Your task to perform on an android device: open chrome and create a bookmark for the current page Image 0: 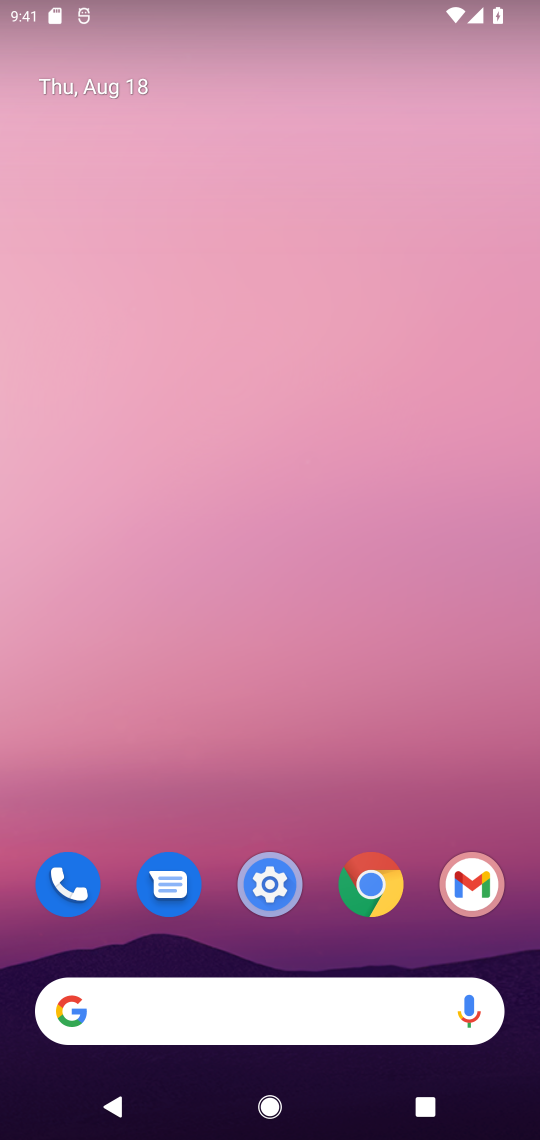
Step 0: click (365, 898)
Your task to perform on an android device: open chrome and create a bookmark for the current page Image 1: 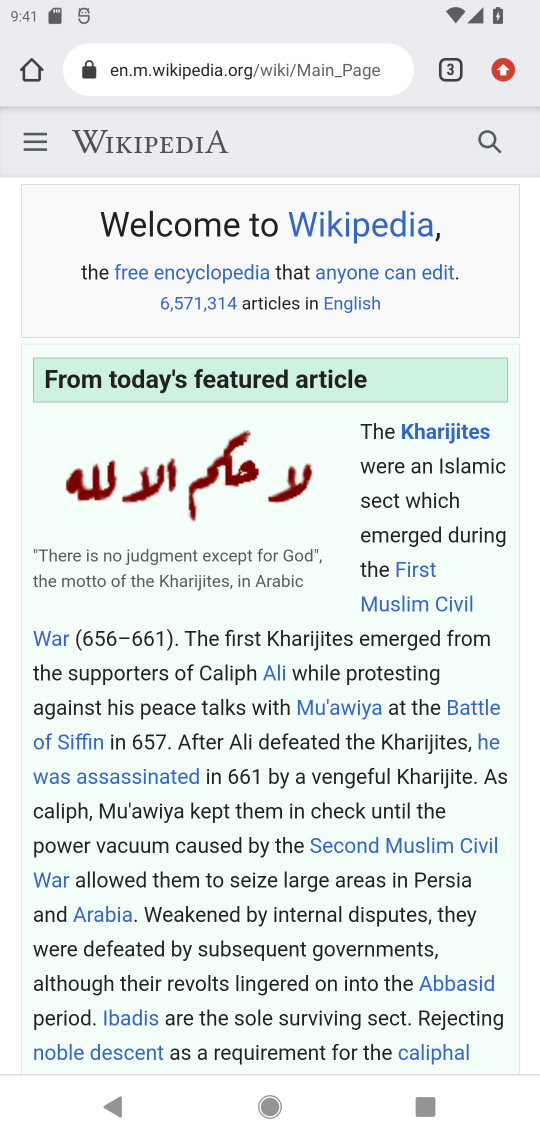
Step 1: click (510, 73)
Your task to perform on an android device: open chrome and create a bookmark for the current page Image 2: 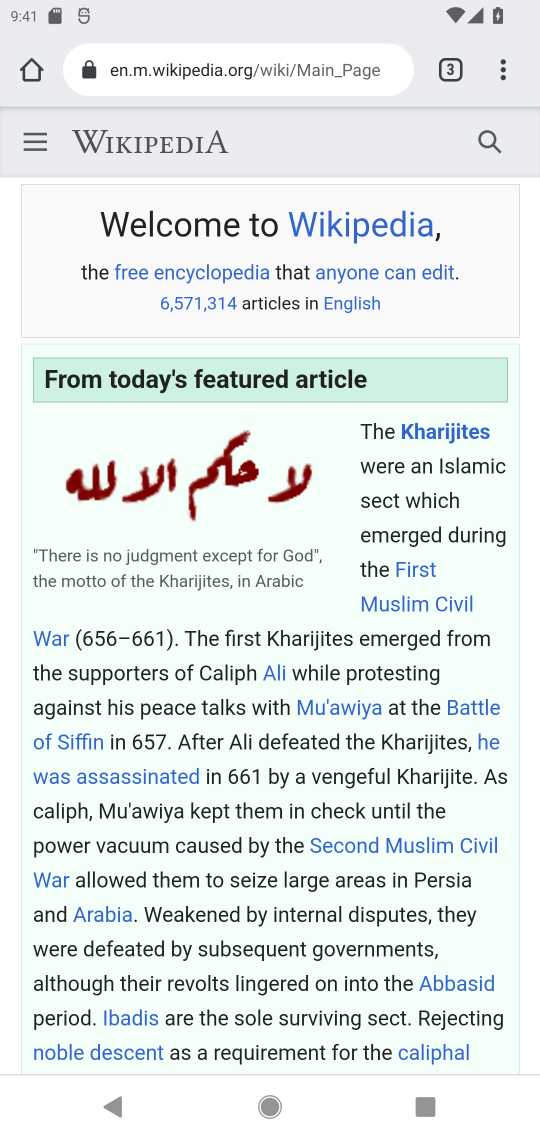
Step 2: click (503, 63)
Your task to perform on an android device: open chrome and create a bookmark for the current page Image 3: 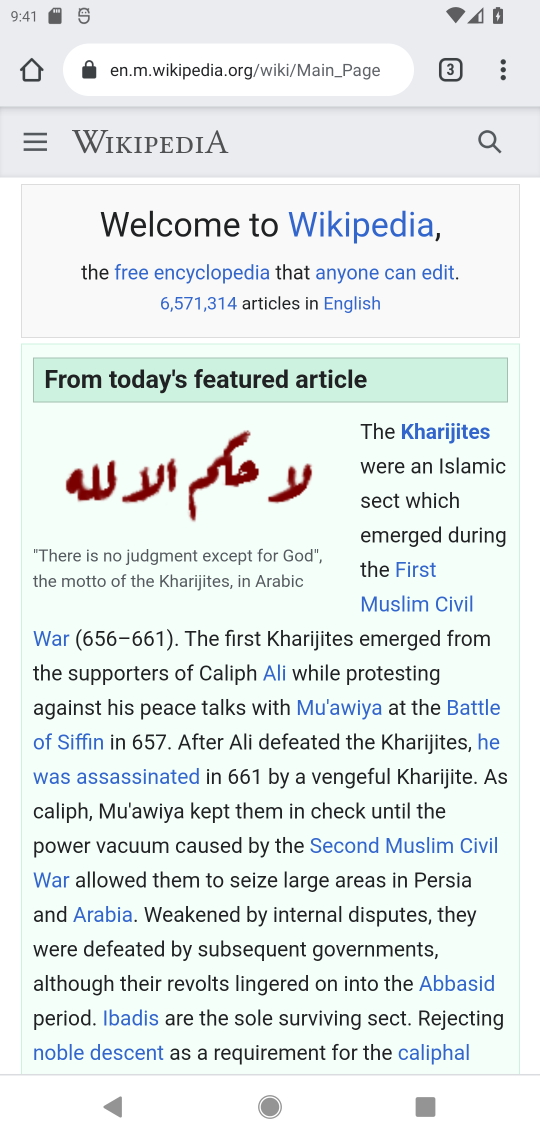
Step 3: click (493, 56)
Your task to perform on an android device: open chrome and create a bookmark for the current page Image 4: 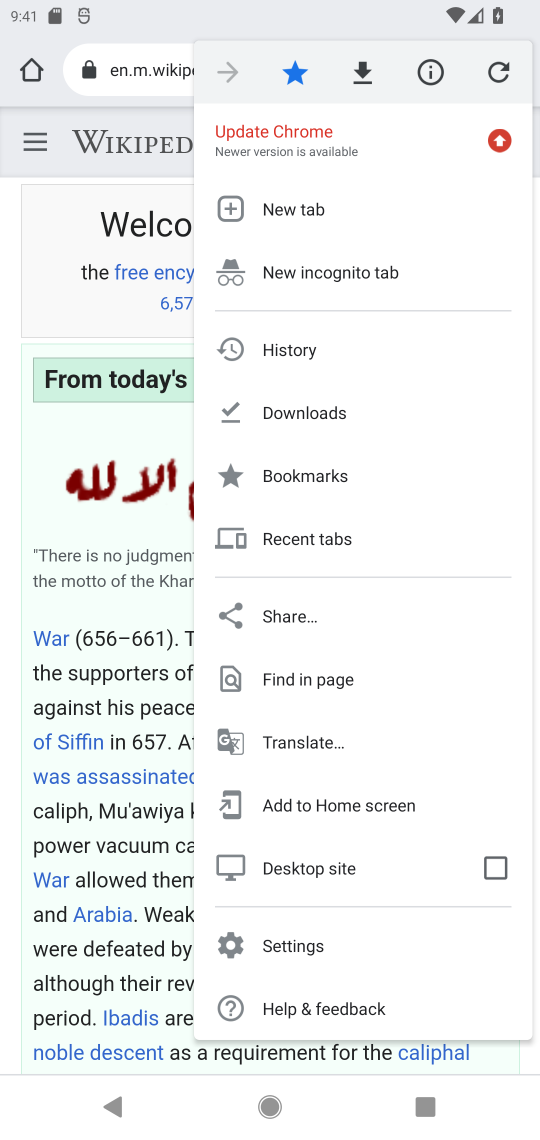
Step 4: click (306, 482)
Your task to perform on an android device: open chrome and create a bookmark for the current page Image 5: 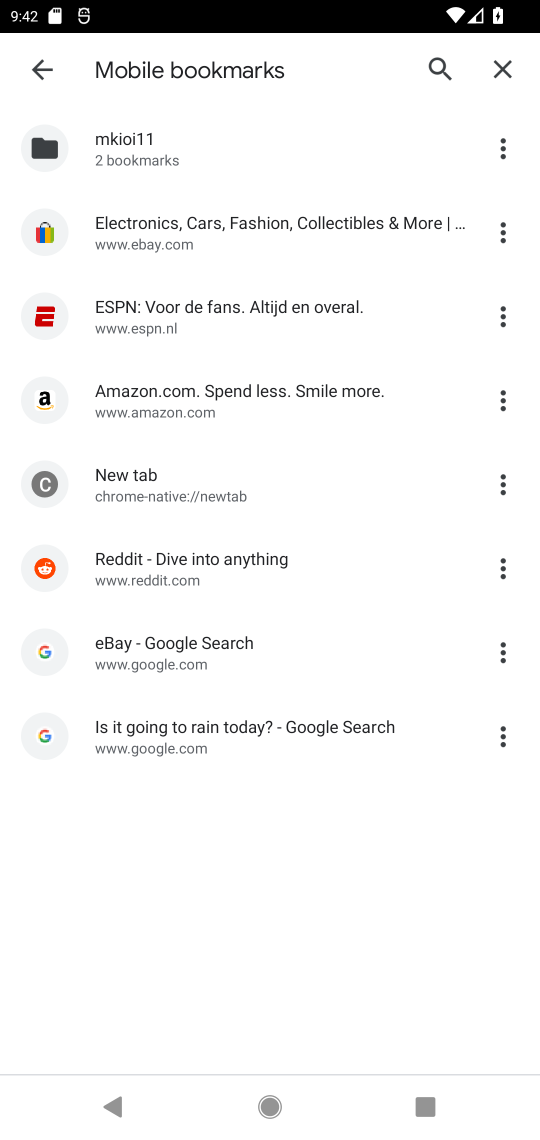
Step 5: task complete